Your task to perform on an android device: make emails show in primary in the gmail app Image 0: 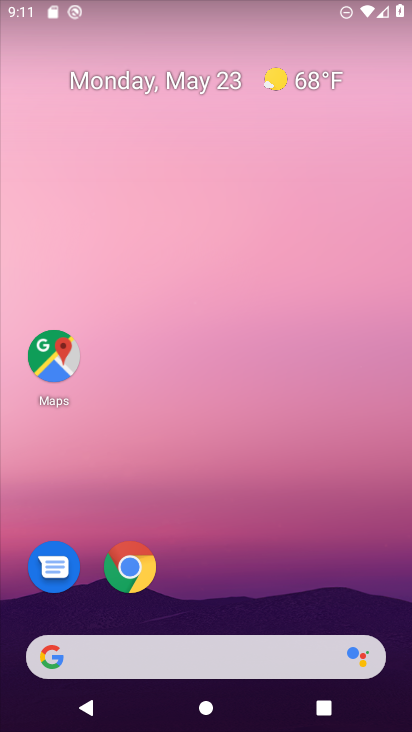
Step 0: drag from (228, 580) to (291, 23)
Your task to perform on an android device: make emails show in primary in the gmail app Image 1: 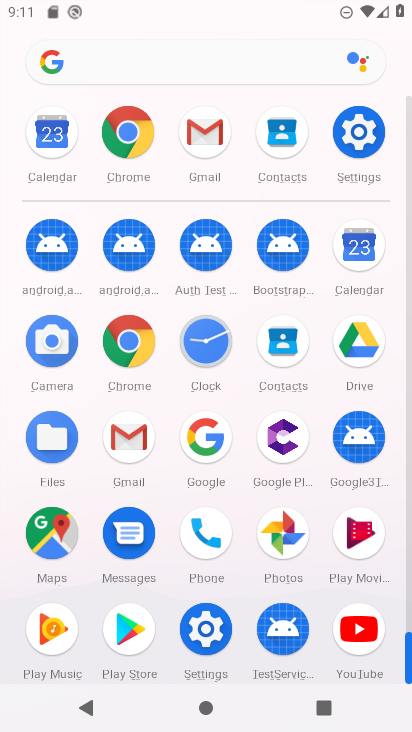
Step 1: click (134, 423)
Your task to perform on an android device: make emails show in primary in the gmail app Image 2: 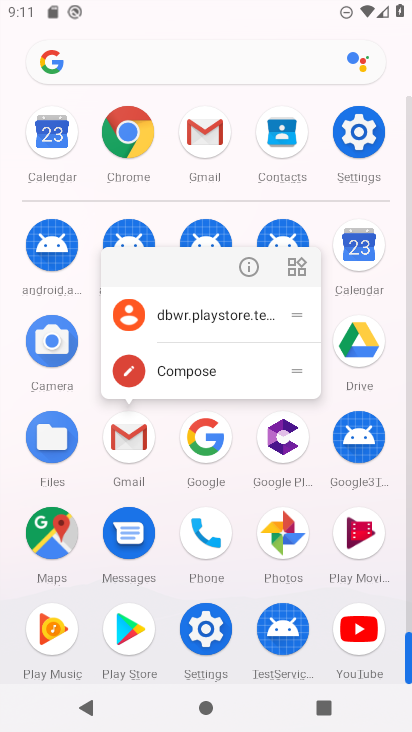
Step 2: click (246, 274)
Your task to perform on an android device: make emails show in primary in the gmail app Image 3: 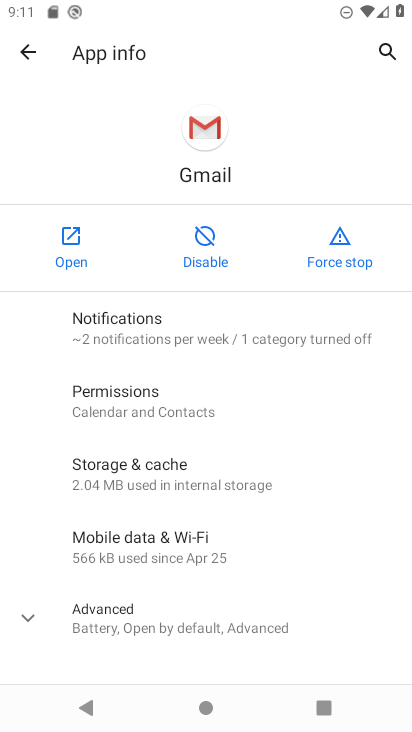
Step 3: click (72, 250)
Your task to perform on an android device: make emails show in primary in the gmail app Image 4: 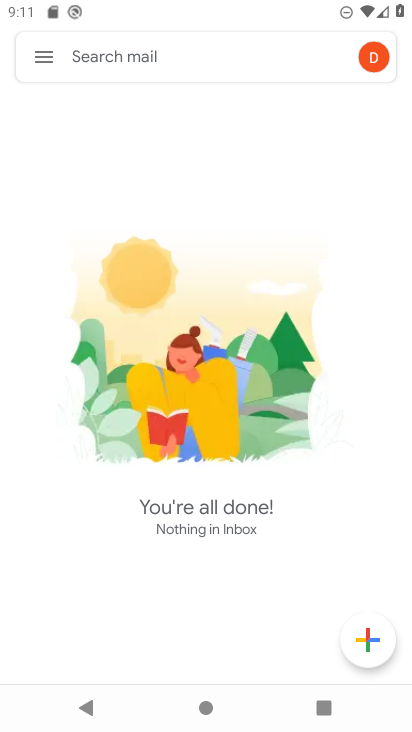
Step 4: drag from (230, 597) to (248, 187)
Your task to perform on an android device: make emails show in primary in the gmail app Image 5: 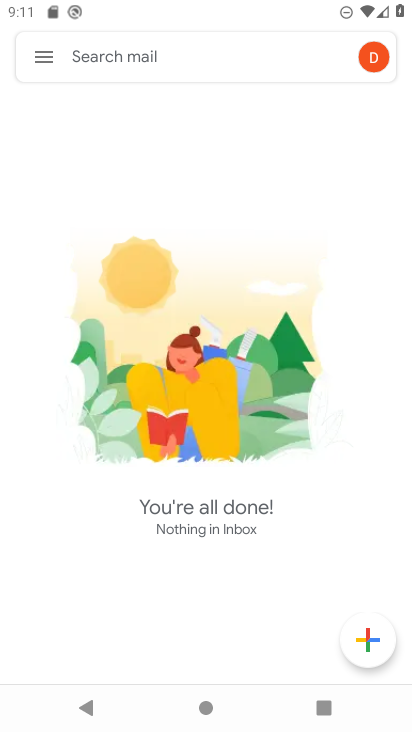
Step 5: click (43, 64)
Your task to perform on an android device: make emails show in primary in the gmail app Image 6: 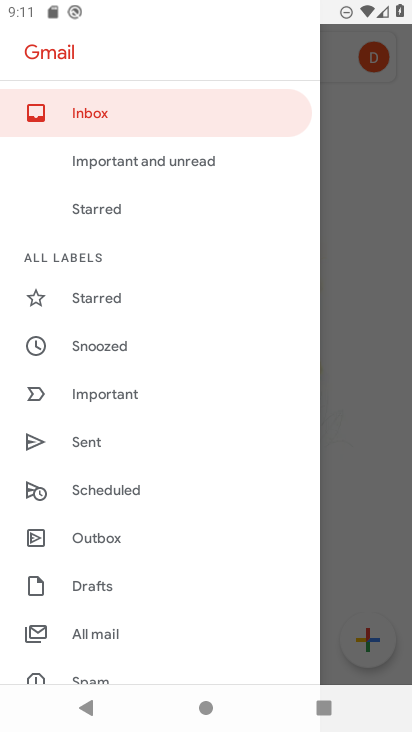
Step 6: drag from (164, 632) to (225, 174)
Your task to perform on an android device: make emails show in primary in the gmail app Image 7: 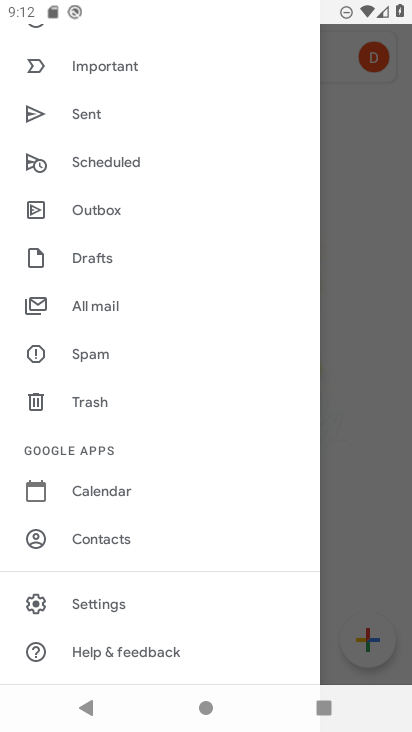
Step 7: drag from (146, 590) to (161, 384)
Your task to perform on an android device: make emails show in primary in the gmail app Image 8: 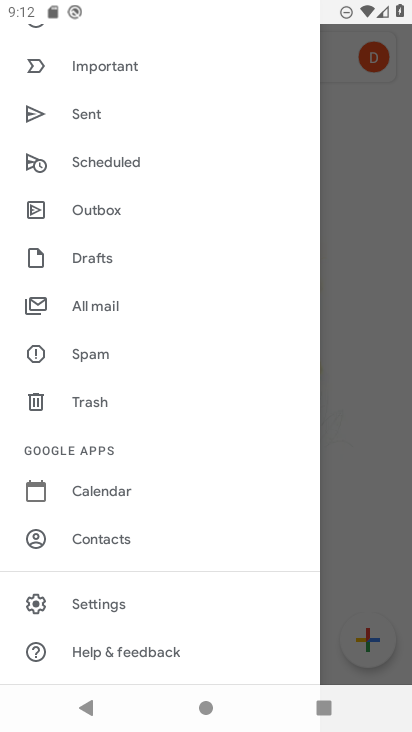
Step 8: drag from (191, 95) to (153, 625)
Your task to perform on an android device: make emails show in primary in the gmail app Image 9: 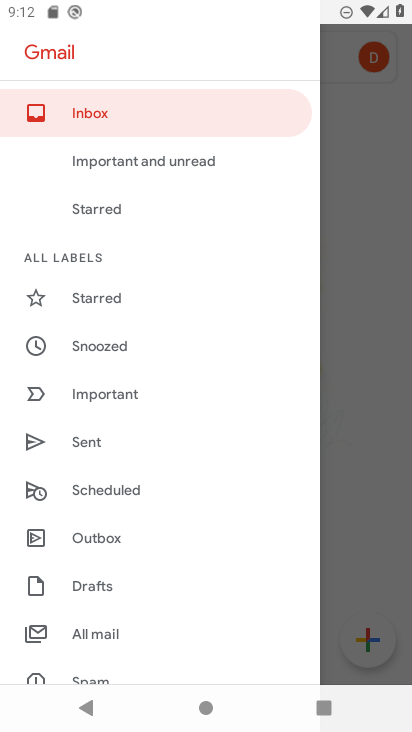
Step 9: click (83, 109)
Your task to perform on an android device: make emails show in primary in the gmail app Image 10: 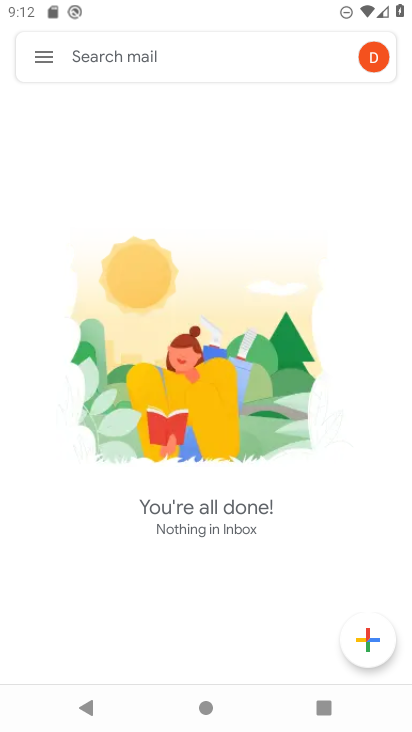
Step 10: drag from (209, 605) to (214, 299)
Your task to perform on an android device: make emails show in primary in the gmail app Image 11: 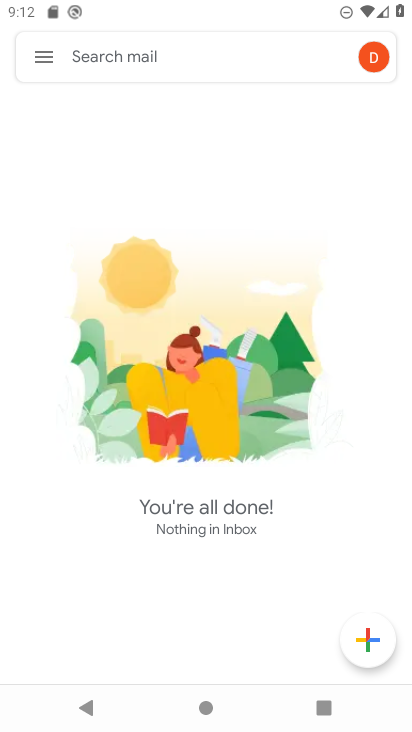
Step 11: click (44, 49)
Your task to perform on an android device: make emails show in primary in the gmail app Image 12: 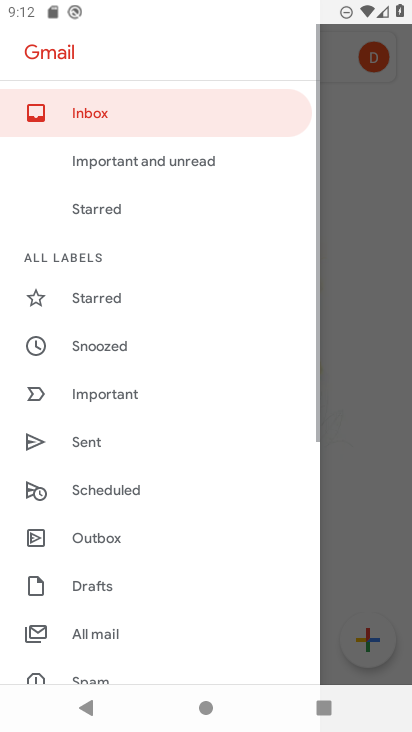
Step 12: drag from (174, 473) to (202, 102)
Your task to perform on an android device: make emails show in primary in the gmail app Image 13: 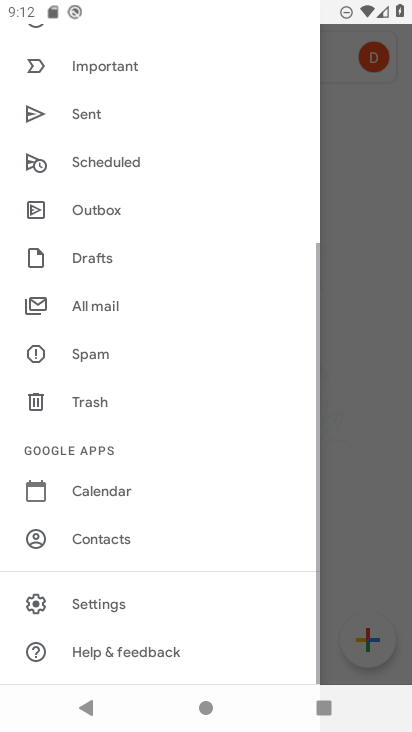
Step 13: drag from (201, 94) to (178, 664)
Your task to perform on an android device: make emails show in primary in the gmail app Image 14: 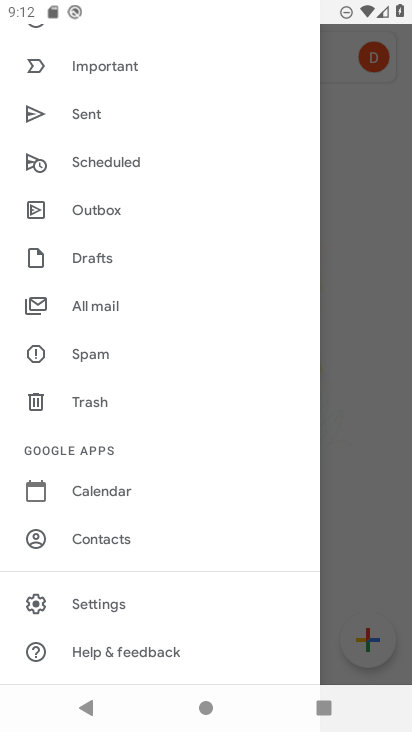
Step 14: drag from (154, 139) to (207, 608)
Your task to perform on an android device: make emails show in primary in the gmail app Image 15: 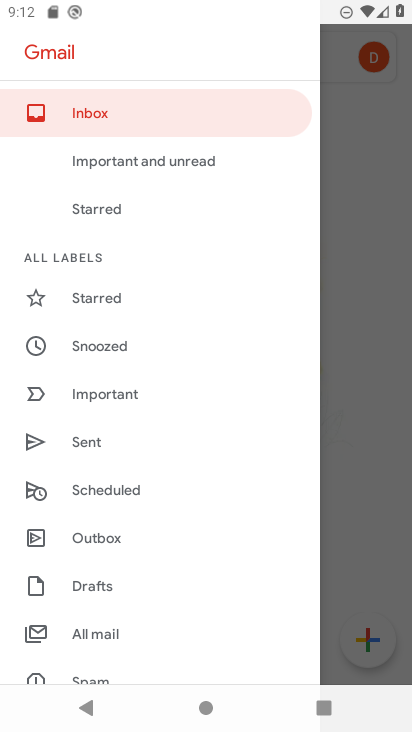
Step 15: drag from (124, 133) to (174, 487)
Your task to perform on an android device: make emails show in primary in the gmail app Image 16: 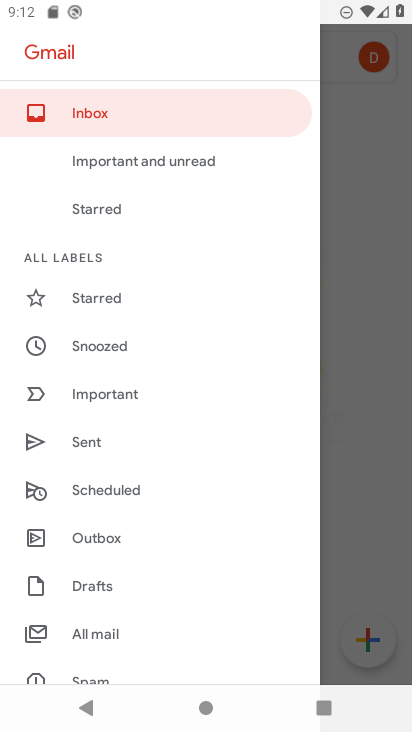
Step 16: click (134, 117)
Your task to perform on an android device: make emails show in primary in the gmail app Image 17: 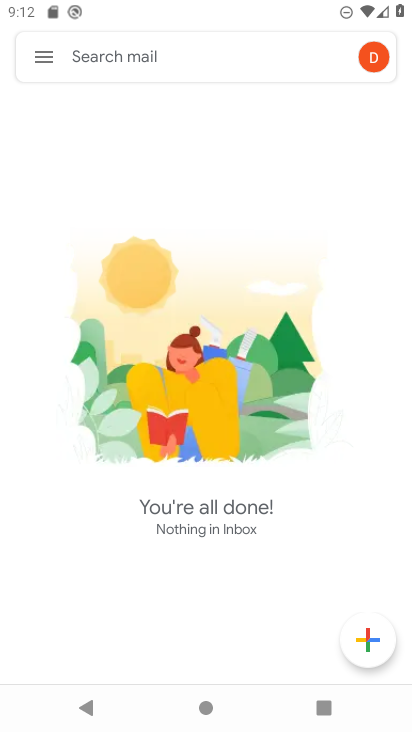
Step 17: click (25, 70)
Your task to perform on an android device: make emails show in primary in the gmail app Image 18: 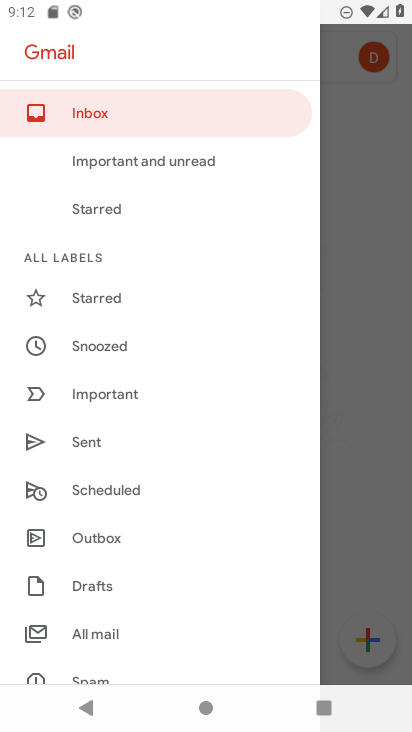
Step 18: drag from (147, 452) to (170, 105)
Your task to perform on an android device: make emails show in primary in the gmail app Image 19: 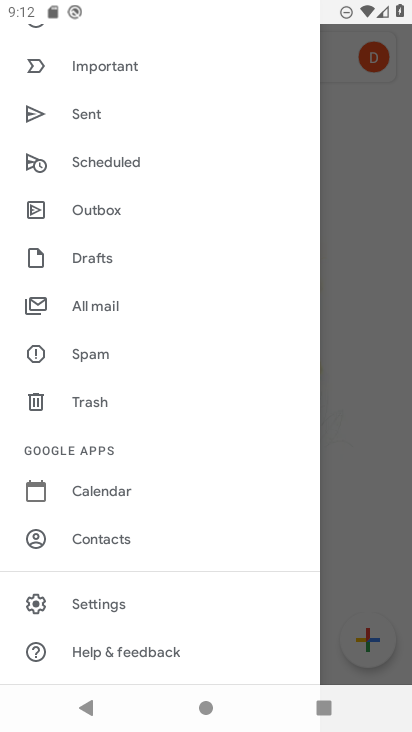
Step 19: drag from (151, 594) to (201, 161)
Your task to perform on an android device: make emails show in primary in the gmail app Image 20: 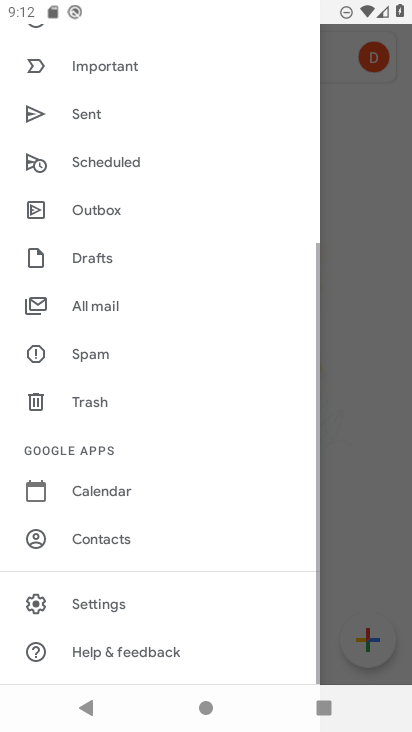
Step 20: drag from (201, 124) to (193, 671)
Your task to perform on an android device: make emails show in primary in the gmail app Image 21: 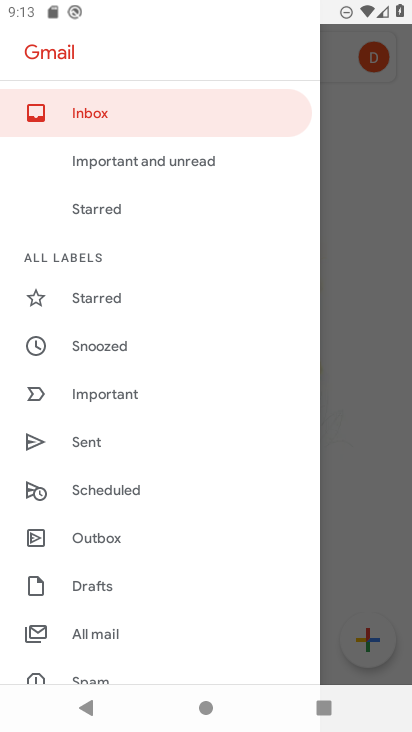
Step 21: drag from (178, 633) to (252, 227)
Your task to perform on an android device: make emails show in primary in the gmail app Image 22: 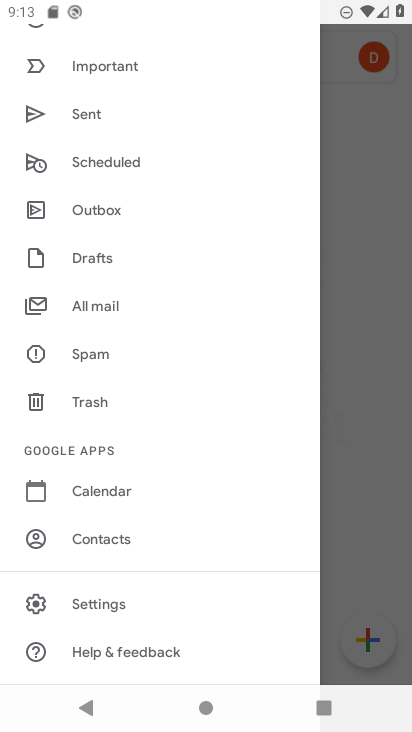
Step 22: drag from (97, 611) to (225, 206)
Your task to perform on an android device: make emails show in primary in the gmail app Image 23: 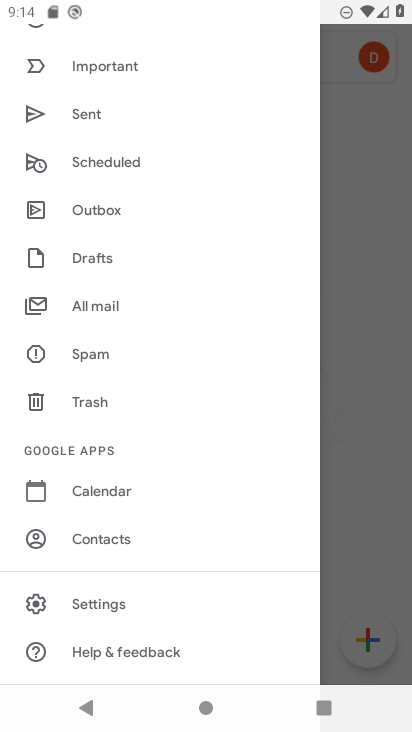
Step 23: drag from (147, 98) to (233, 722)
Your task to perform on an android device: make emails show in primary in the gmail app Image 24: 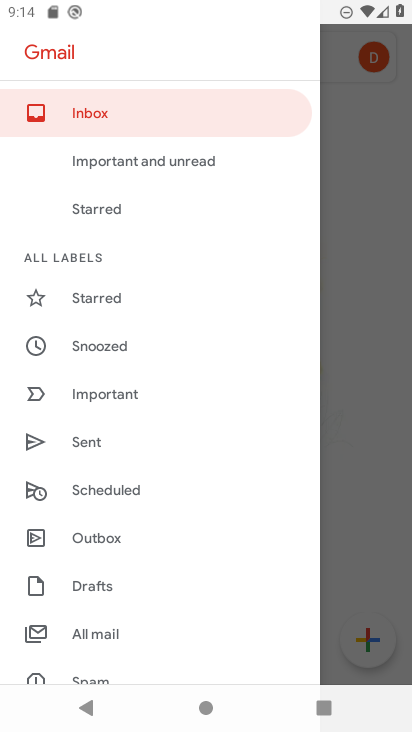
Step 24: click (134, 111)
Your task to perform on an android device: make emails show in primary in the gmail app Image 25: 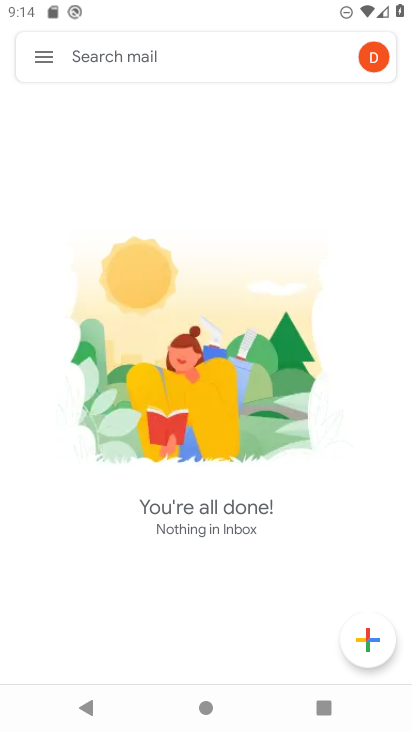
Step 25: drag from (166, 541) to (225, 249)
Your task to perform on an android device: make emails show in primary in the gmail app Image 26: 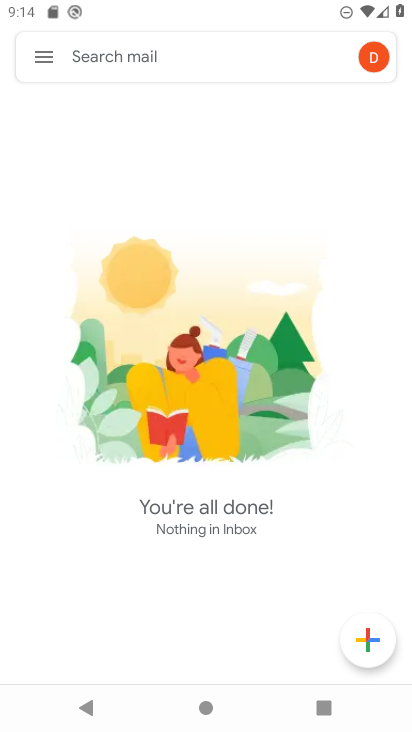
Step 26: click (40, 47)
Your task to perform on an android device: make emails show in primary in the gmail app Image 27: 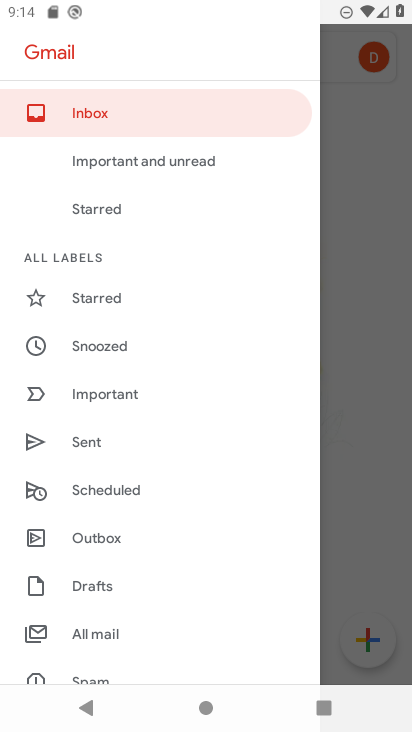
Step 27: task complete